Your task to perform on an android device: Open Amazon Image 0: 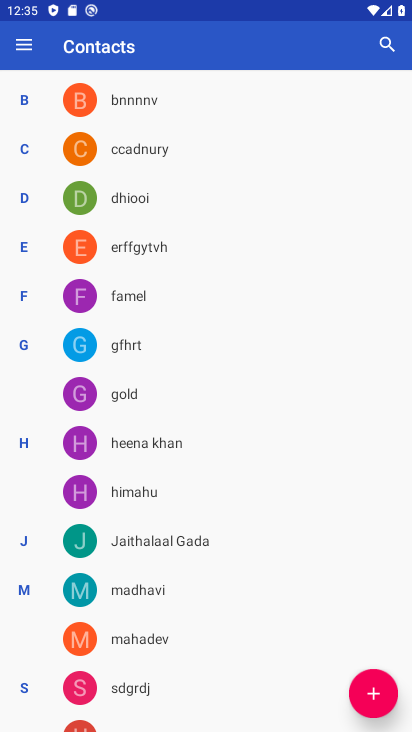
Step 0: press home button
Your task to perform on an android device: Open Amazon Image 1: 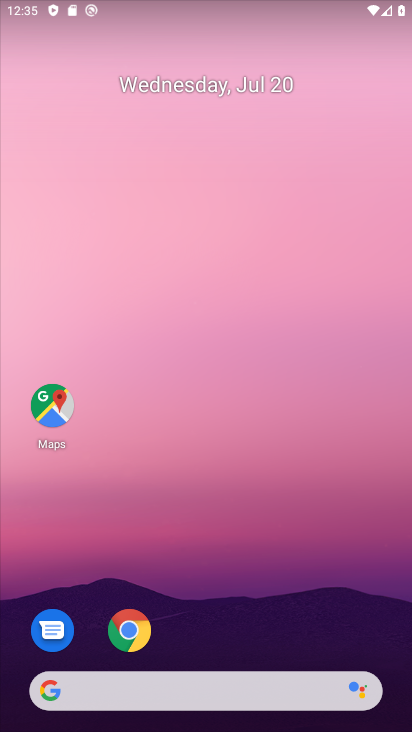
Step 1: drag from (270, 646) to (295, 91)
Your task to perform on an android device: Open Amazon Image 2: 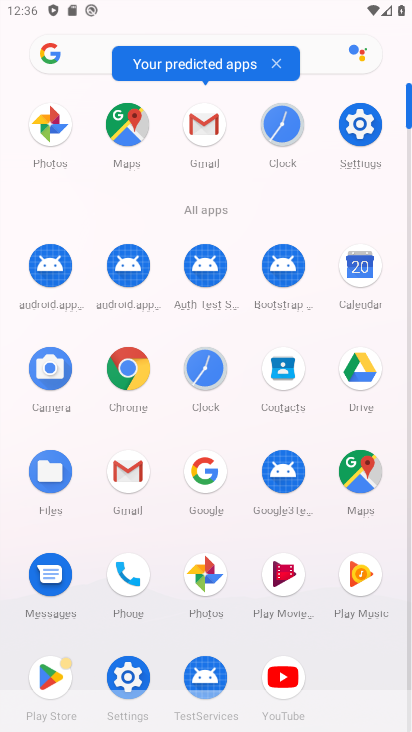
Step 2: click (134, 384)
Your task to perform on an android device: Open Amazon Image 3: 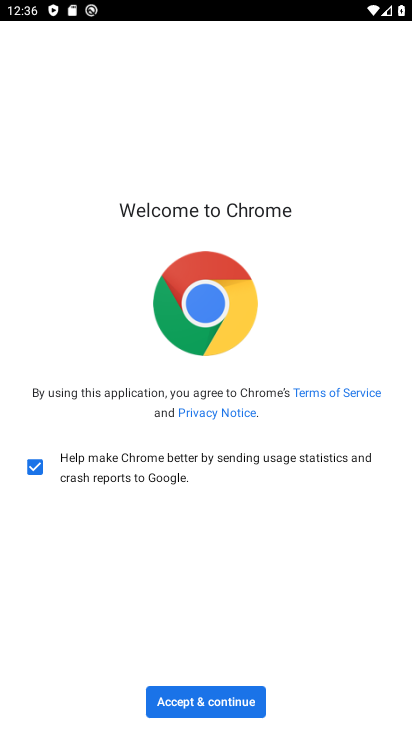
Step 3: click (249, 706)
Your task to perform on an android device: Open Amazon Image 4: 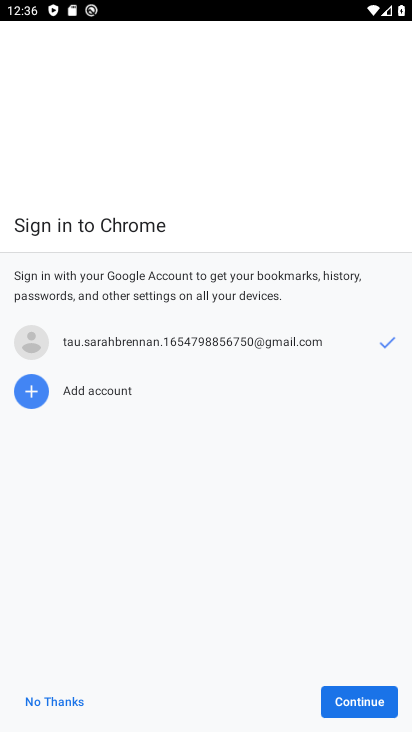
Step 4: click (385, 695)
Your task to perform on an android device: Open Amazon Image 5: 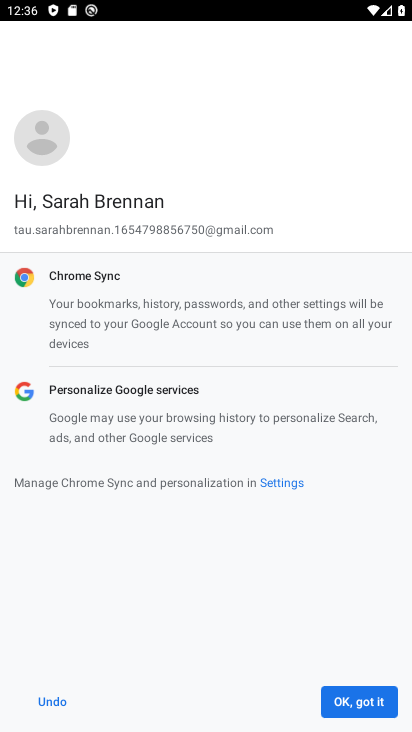
Step 5: click (385, 695)
Your task to perform on an android device: Open Amazon Image 6: 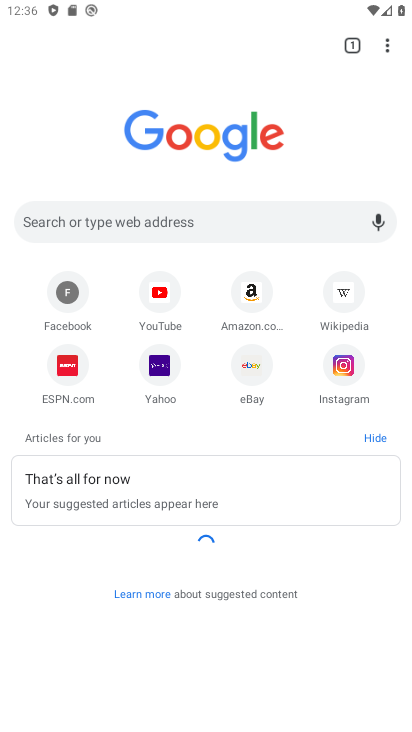
Step 6: click (247, 298)
Your task to perform on an android device: Open Amazon Image 7: 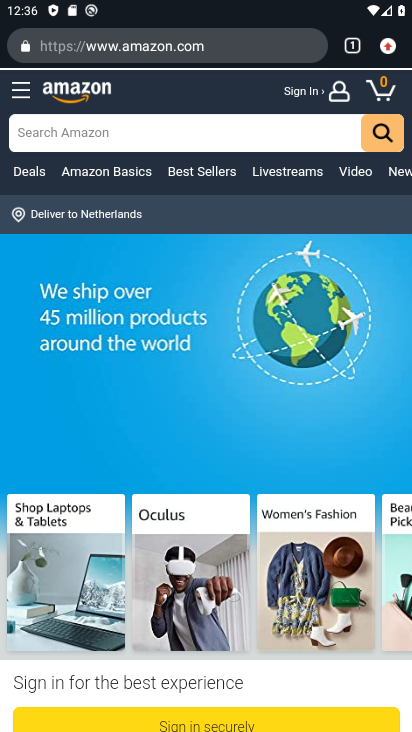
Step 7: task complete